Your task to perform on an android device: Open Google Chrome and click the shortcut for Amazon.com Image 0: 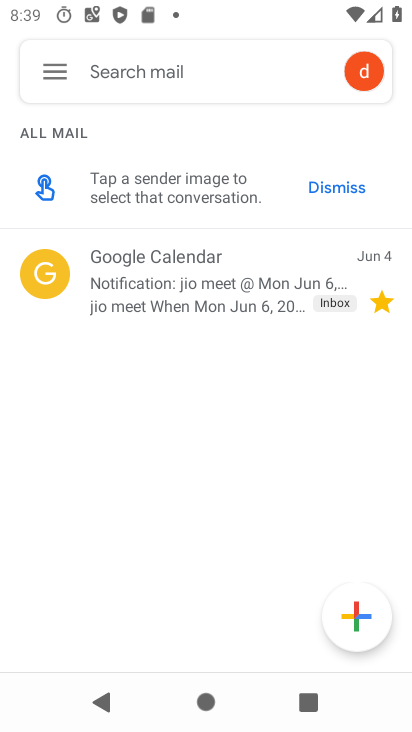
Step 0: press home button
Your task to perform on an android device: Open Google Chrome and click the shortcut for Amazon.com Image 1: 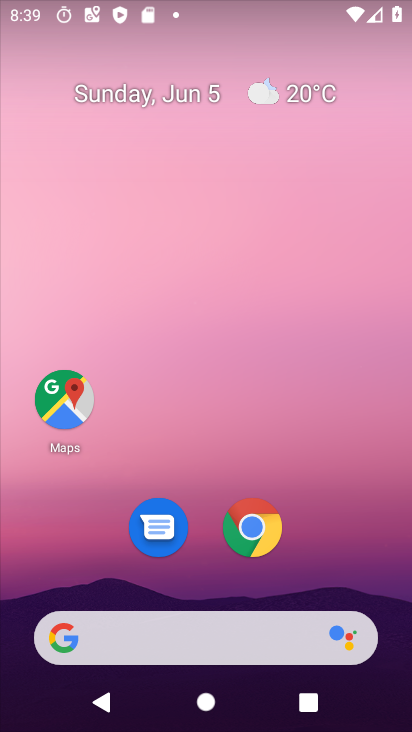
Step 1: drag from (393, 552) to (337, 9)
Your task to perform on an android device: Open Google Chrome and click the shortcut for Amazon.com Image 2: 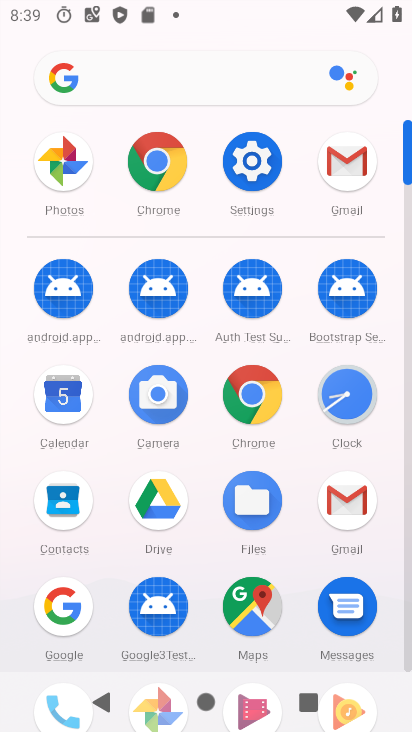
Step 2: click (167, 149)
Your task to perform on an android device: Open Google Chrome and click the shortcut for Amazon.com Image 3: 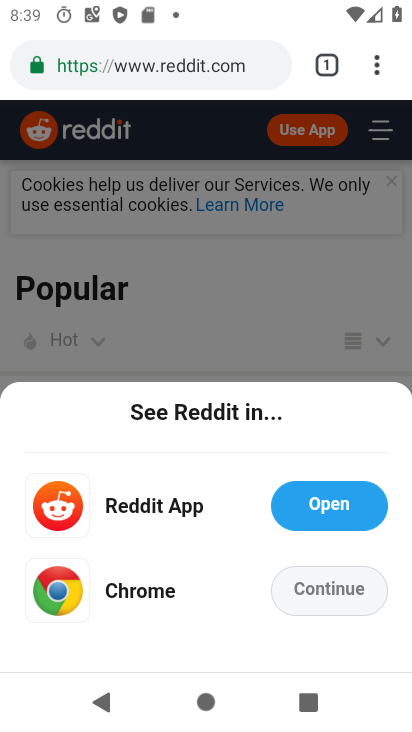
Step 3: click (241, 42)
Your task to perform on an android device: Open Google Chrome and click the shortcut for Amazon.com Image 4: 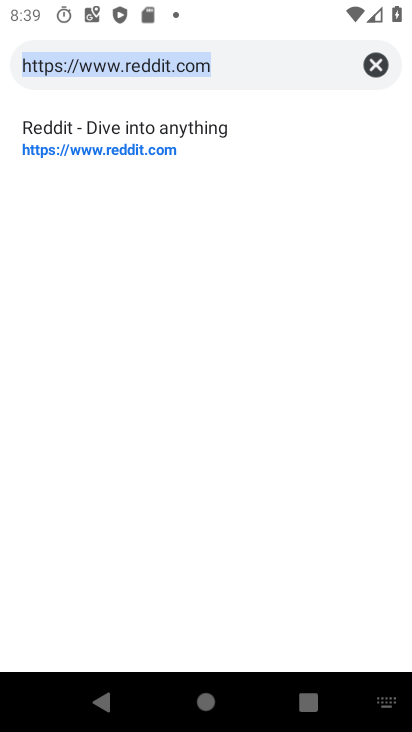
Step 4: click (369, 69)
Your task to perform on an android device: Open Google Chrome and click the shortcut for Amazon.com Image 5: 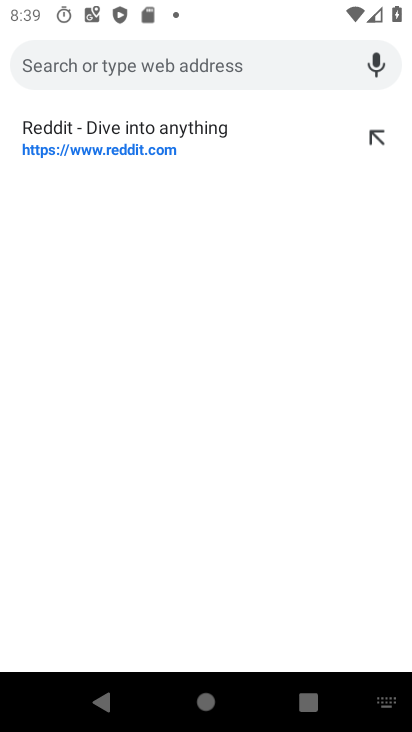
Step 5: type "amazon"
Your task to perform on an android device: Open Google Chrome and click the shortcut for Amazon.com Image 6: 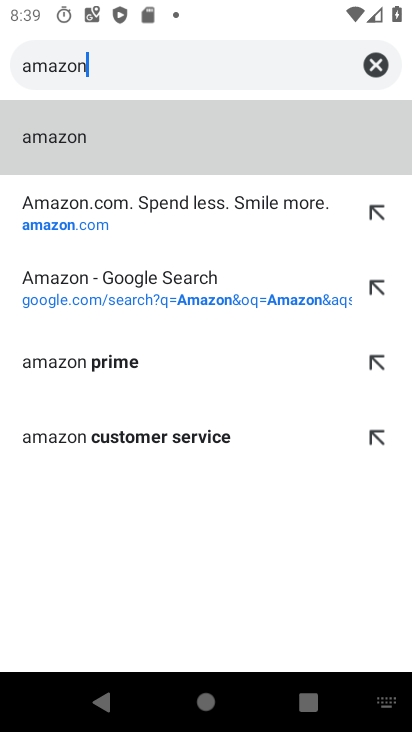
Step 6: click (95, 219)
Your task to perform on an android device: Open Google Chrome and click the shortcut for Amazon.com Image 7: 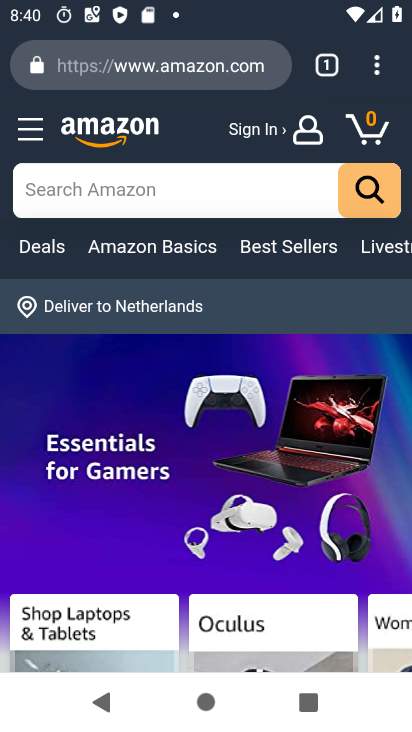
Step 7: drag from (378, 77) to (286, 447)
Your task to perform on an android device: Open Google Chrome and click the shortcut for Amazon.com Image 8: 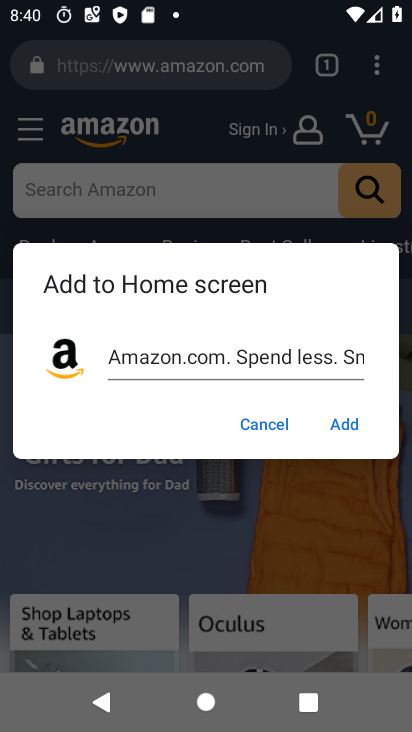
Step 8: click (342, 422)
Your task to perform on an android device: Open Google Chrome and click the shortcut for Amazon.com Image 9: 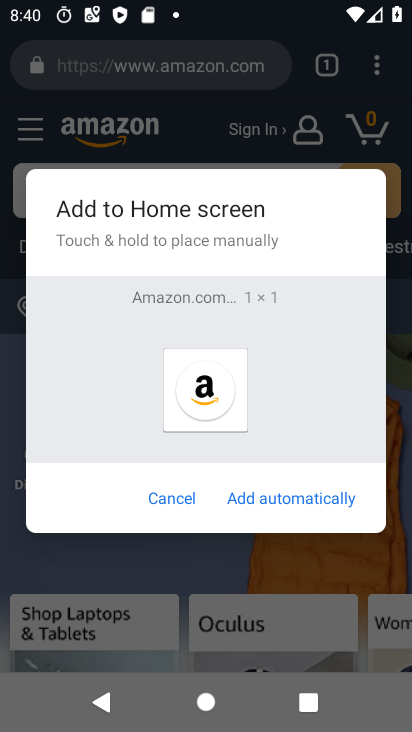
Step 9: click (319, 492)
Your task to perform on an android device: Open Google Chrome and click the shortcut for Amazon.com Image 10: 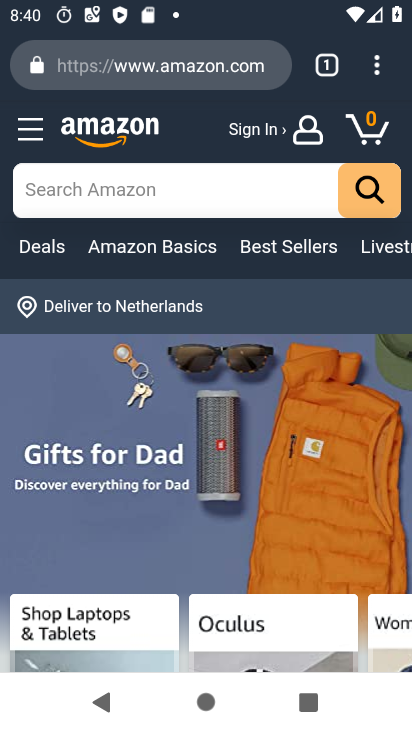
Step 10: task complete